Your task to perform on an android device: turn off location Image 0: 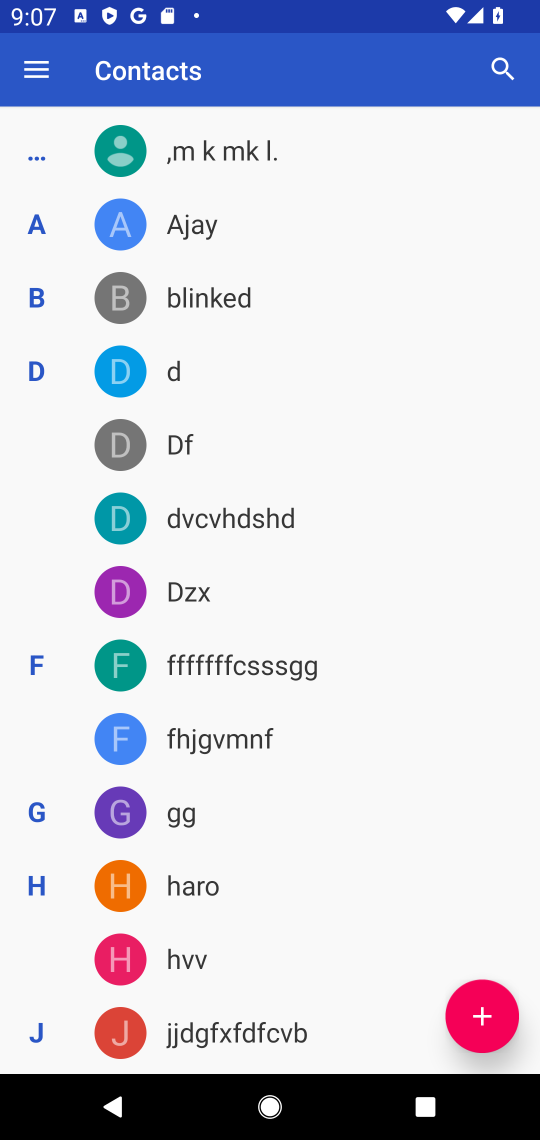
Step 0: press home button
Your task to perform on an android device: turn off location Image 1: 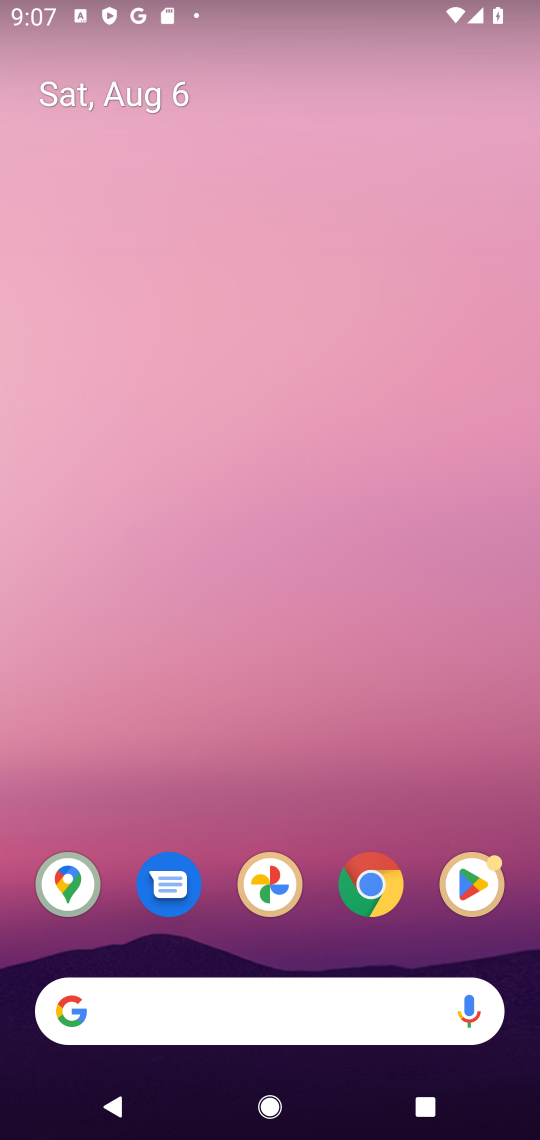
Step 1: drag from (427, 945) to (369, 116)
Your task to perform on an android device: turn off location Image 2: 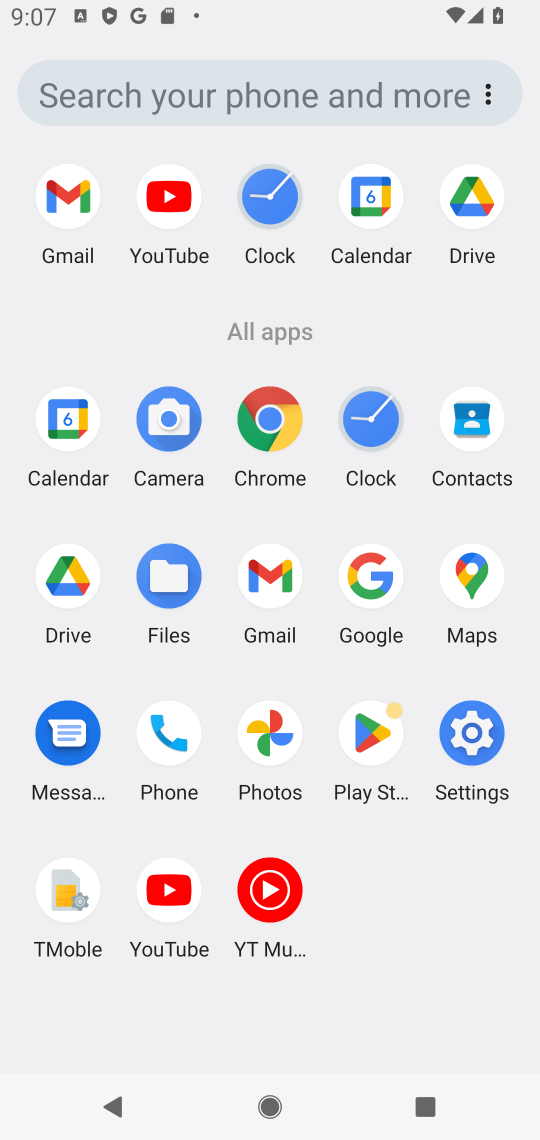
Step 2: click (474, 727)
Your task to perform on an android device: turn off location Image 3: 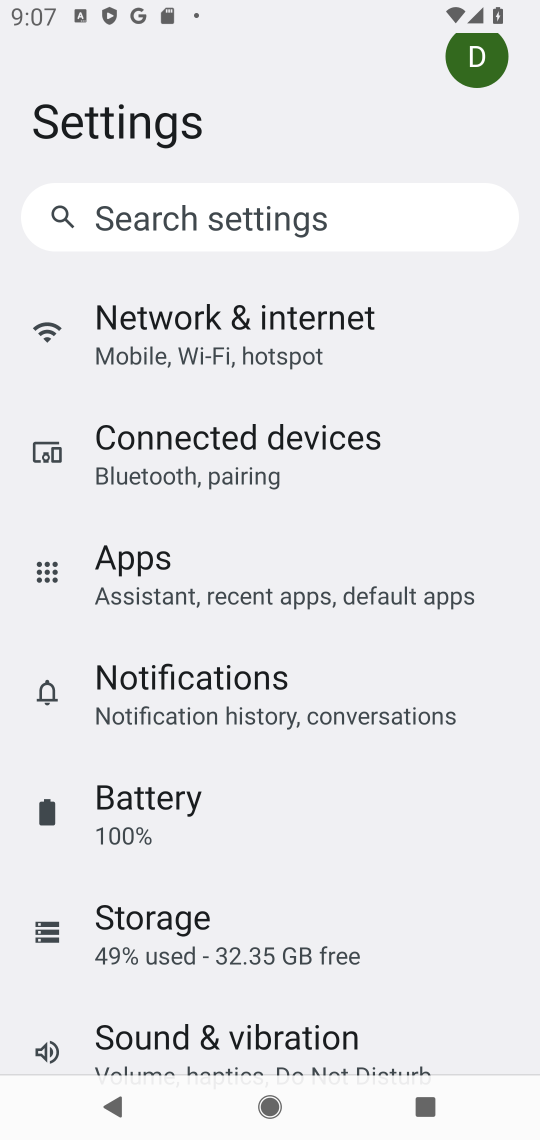
Step 3: drag from (499, 970) to (445, 345)
Your task to perform on an android device: turn off location Image 4: 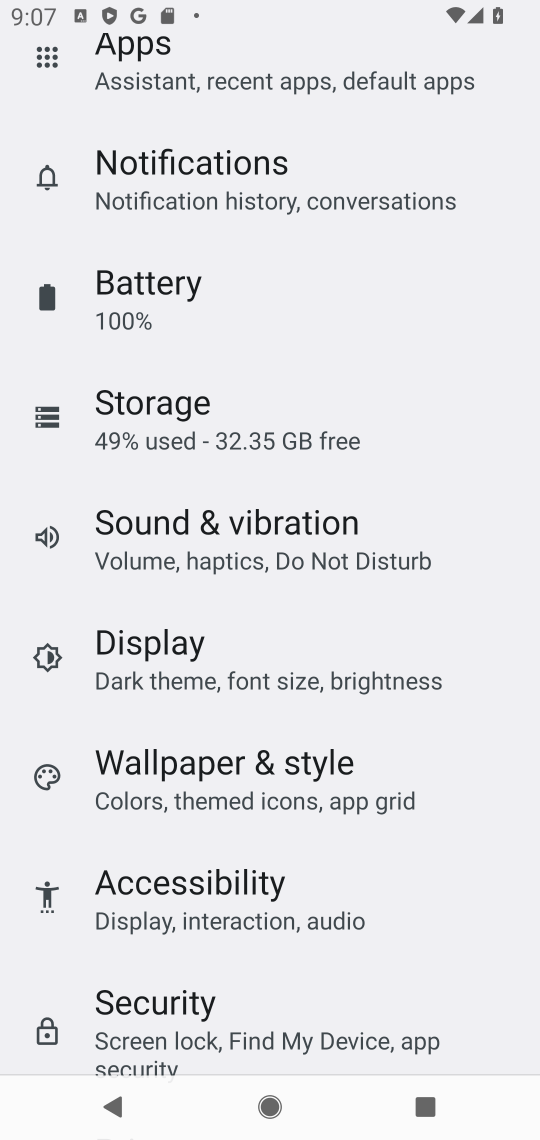
Step 4: drag from (446, 873) to (460, 261)
Your task to perform on an android device: turn off location Image 5: 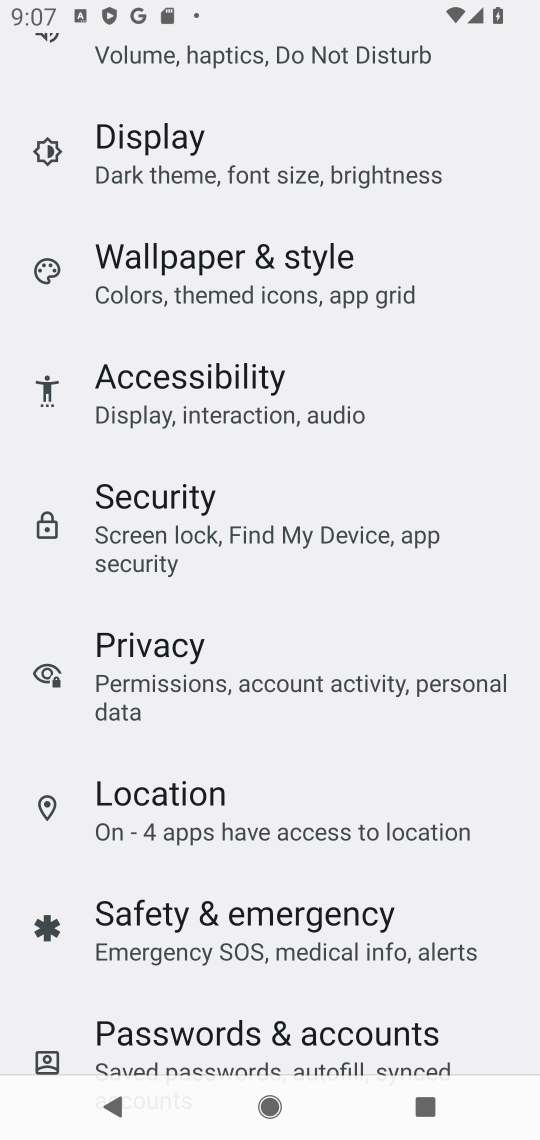
Step 5: click (175, 808)
Your task to perform on an android device: turn off location Image 6: 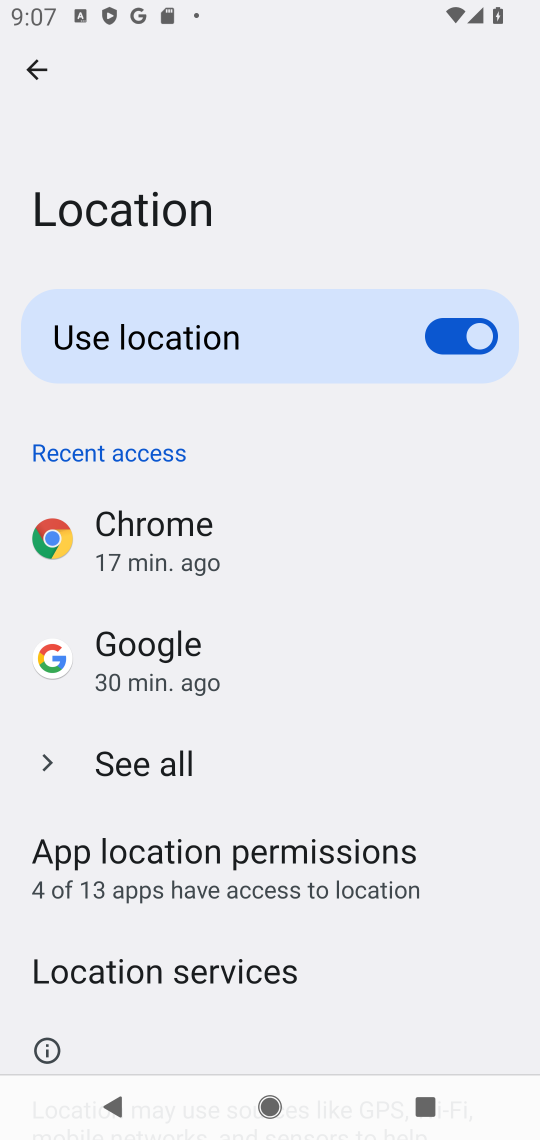
Step 6: click (435, 330)
Your task to perform on an android device: turn off location Image 7: 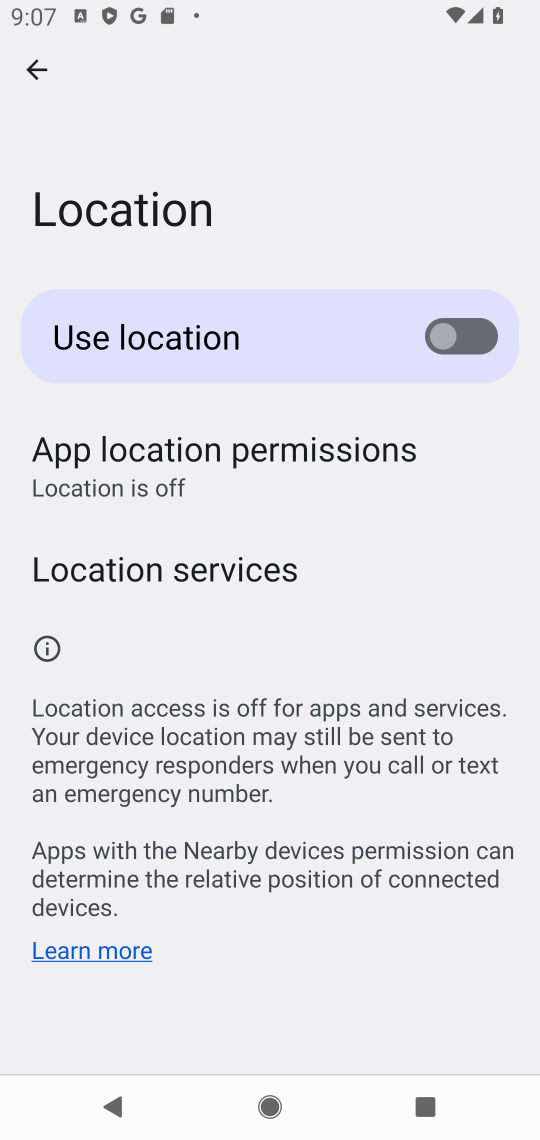
Step 7: task complete